Your task to perform on an android device: check storage Image 0: 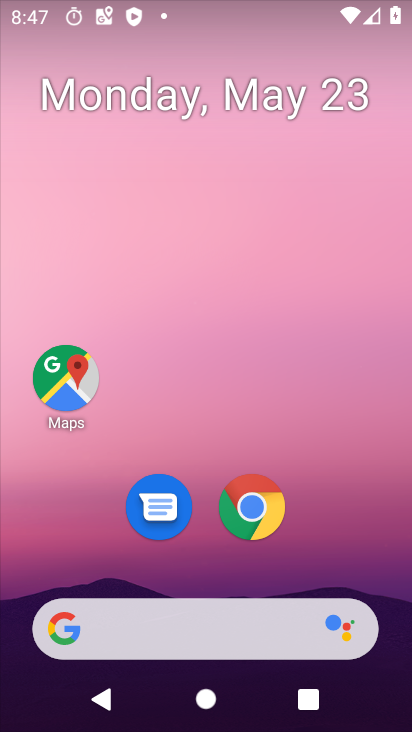
Step 0: drag from (342, 539) to (261, 44)
Your task to perform on an android device: check storage Image 1: 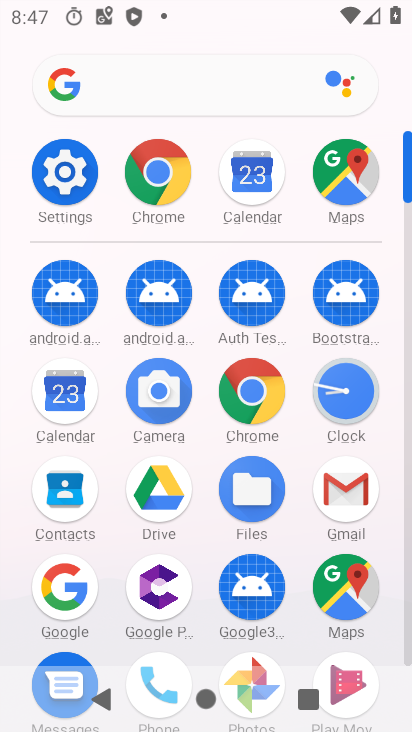
Step 1: click (53, 179)
Your task to perform on an android device: check storage Image 2: 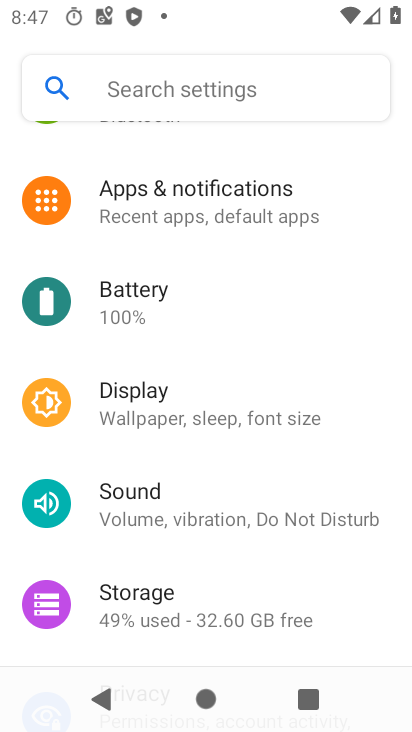
Step 2: drag from (204, 578) to (131, 307)
Your task to perform on an android device: check storage Image 3: 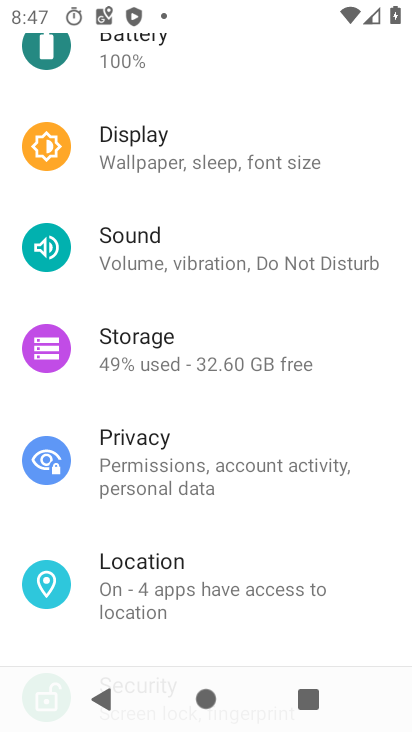
Step 3: click (160, 353)
Your task to perform on an android device: check storage Image 4: 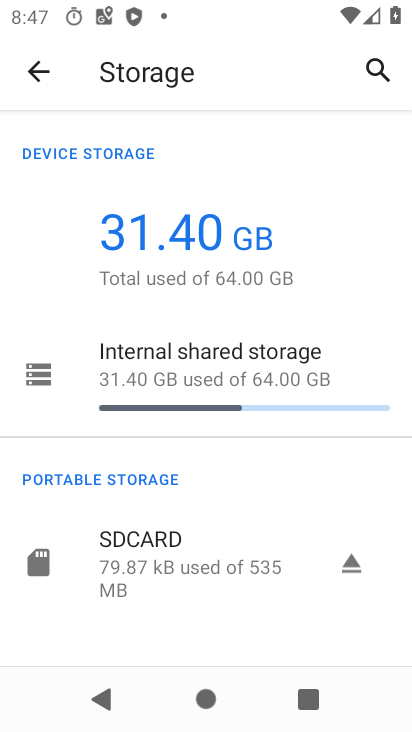
Step 4: click (143, 399)
Your task to perform on an android device: check storage Image 5: 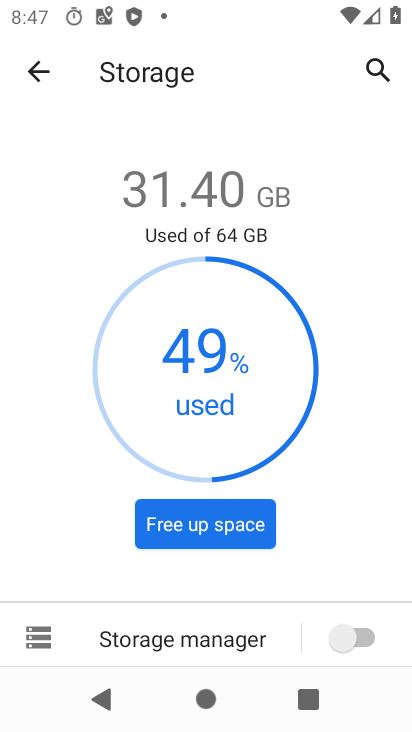
Step 5: task complete